Your task to perform on an android device: Open calendar and show me the first week of next month Image 0: 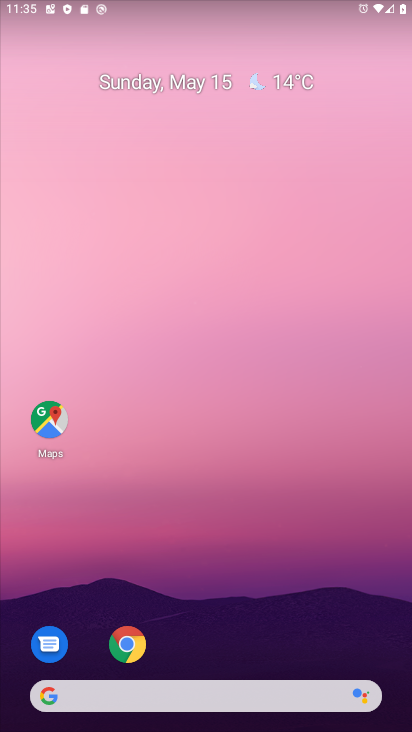
Step 0: drag from (219, 504) to (113, 30)
Your task to perform on an android device: Open calendar and show me the first week of next month Image 1: 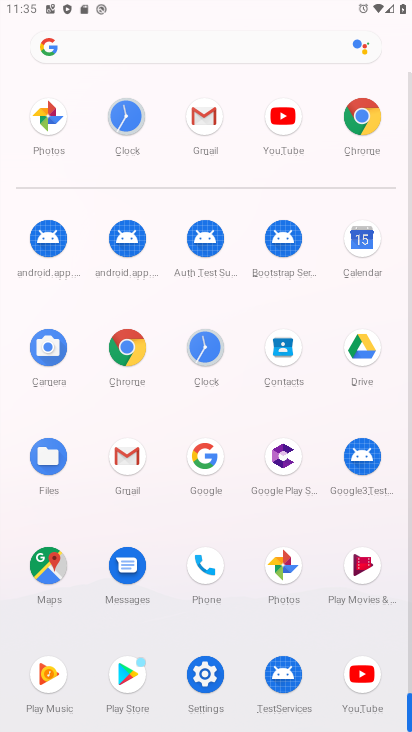
Step 1: click (362, 240)
Your task to perform on an android device: Open calendar and show me the first week of next month Image 2: 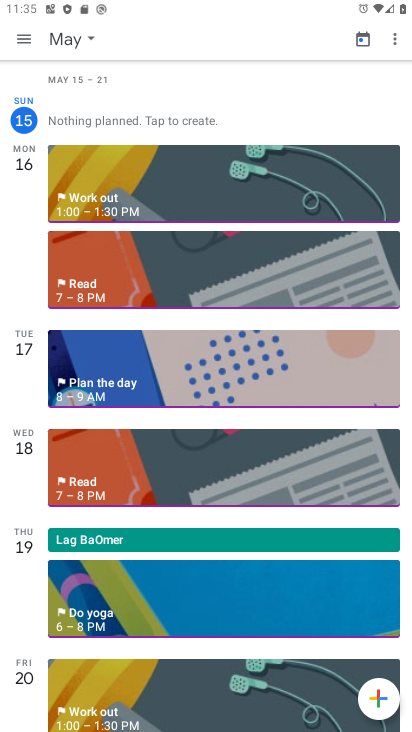
Step 2: click (82, 36)
Your task to perform on an android device: Open calendar and show me the first week of next month Image 3: 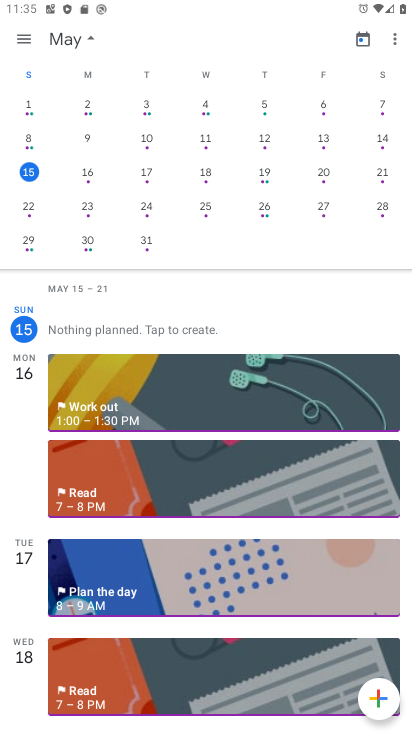
Step 3: drag from (339, 172) to (7, 176)
Your task to perform on an android device: Open calendar and show me the first week of next month Image 4: 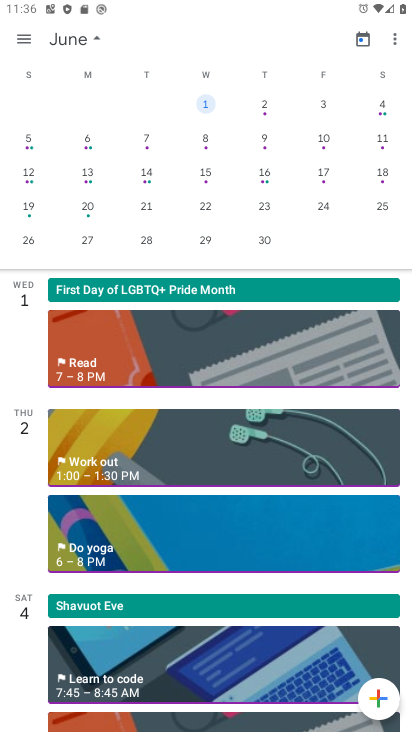
Step 4: click (204, 100)
Your task to perform on an android device: Open calendar and show me the first week of next month Image 5: 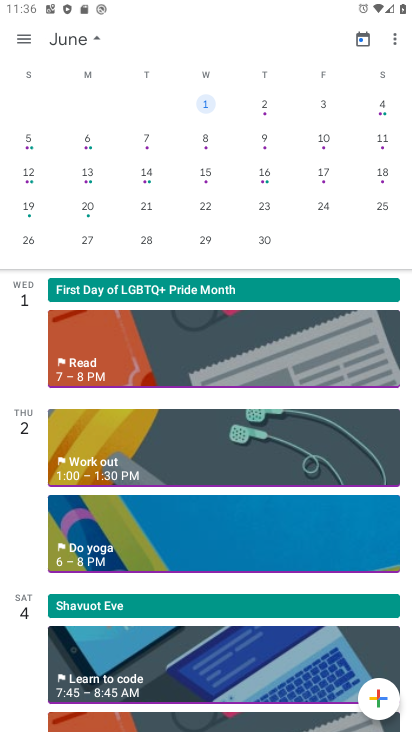
Step 5: click (5, 22)
Your task to perform on an android device: Open calendar and show me the first week of next month Image 6: 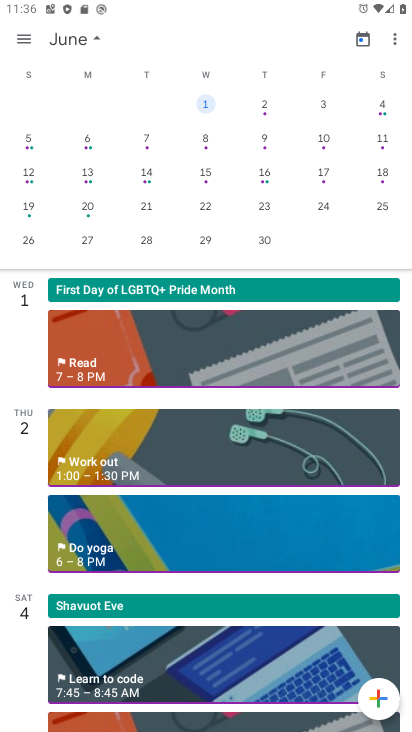
Step 6: click (20, 34)
Your task to perform on an android device: Open calendar and show me the first week of next month Image 7: 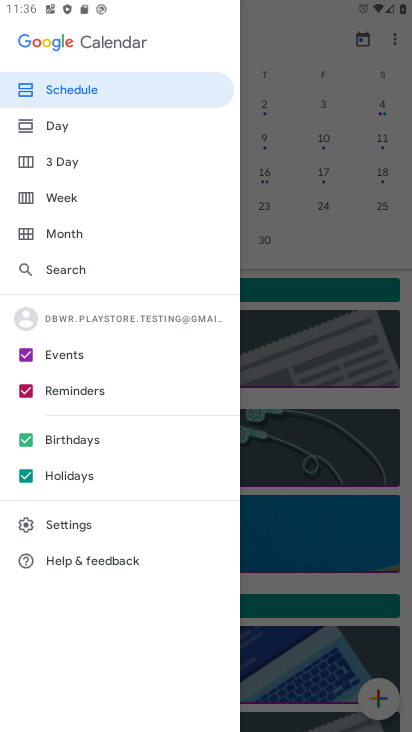
Step 7: click (107, 194)
Your task to perform on an android device: Open calendar and show me the first week of next month Image 8: 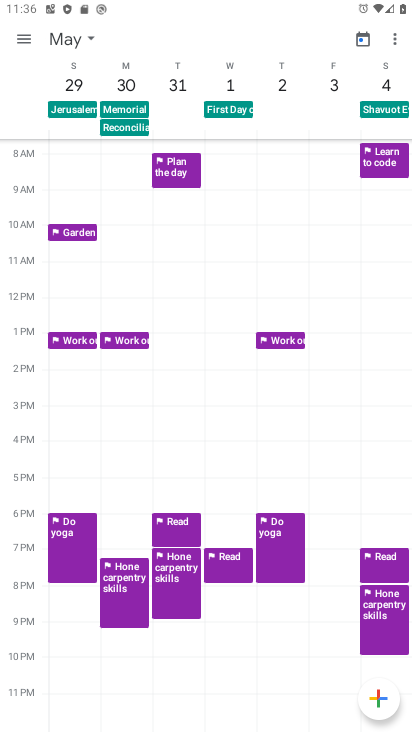
Step 8: click (82, 38)
Your task to perform on an android device: Open calendar and show me the first week of next month Image 9: 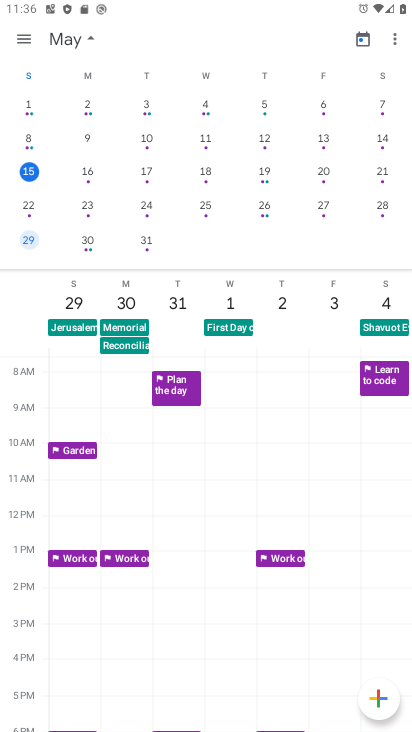
Step 9: drag from (362, 213) to (2, 277)
Your task to perform on an android device: Open calendar and show me the first week of next month Image 10: 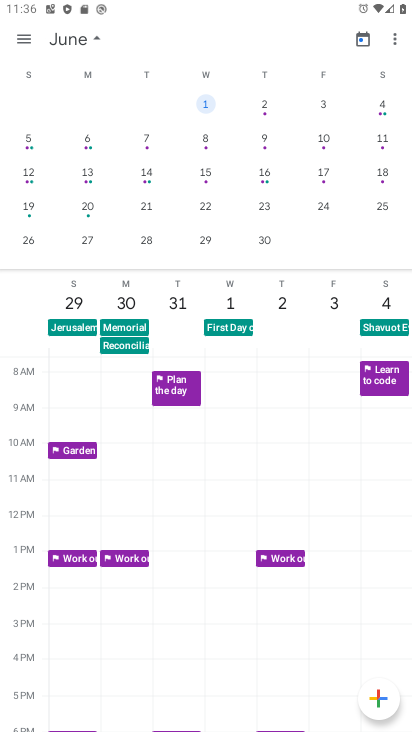
Step 10: click (206, 100)
Your task to perform on an android device: Open calendar and show me the first week of next month Image 11: 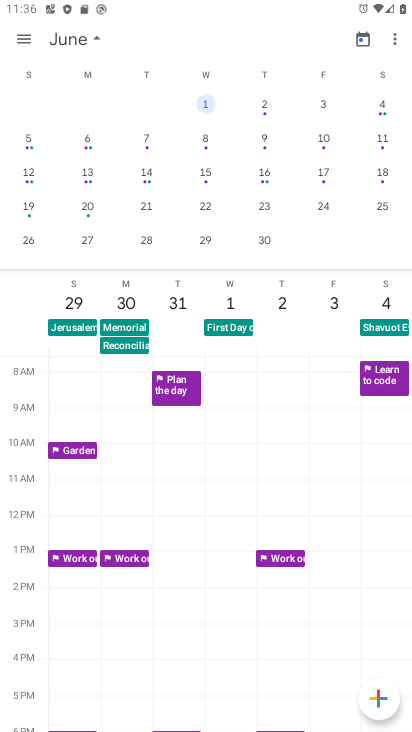
Step 11: task complete